Your task to perform on an android device: remove spam from my inbox in the gmail app Image 0: 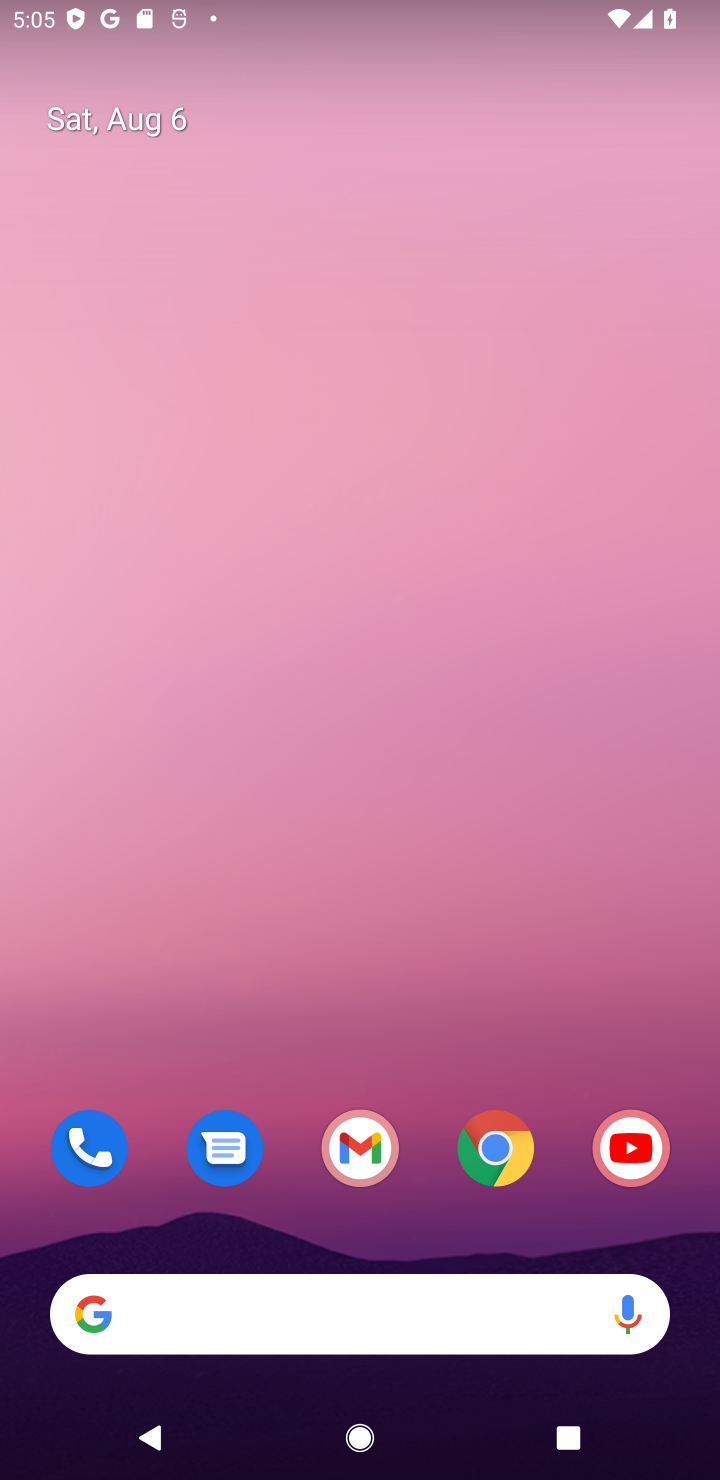
Step 0: drag from (396, 1246) to (215, 238)
Your task to perform on an android device: remove spam from my inbox in the gmail app Image 1: 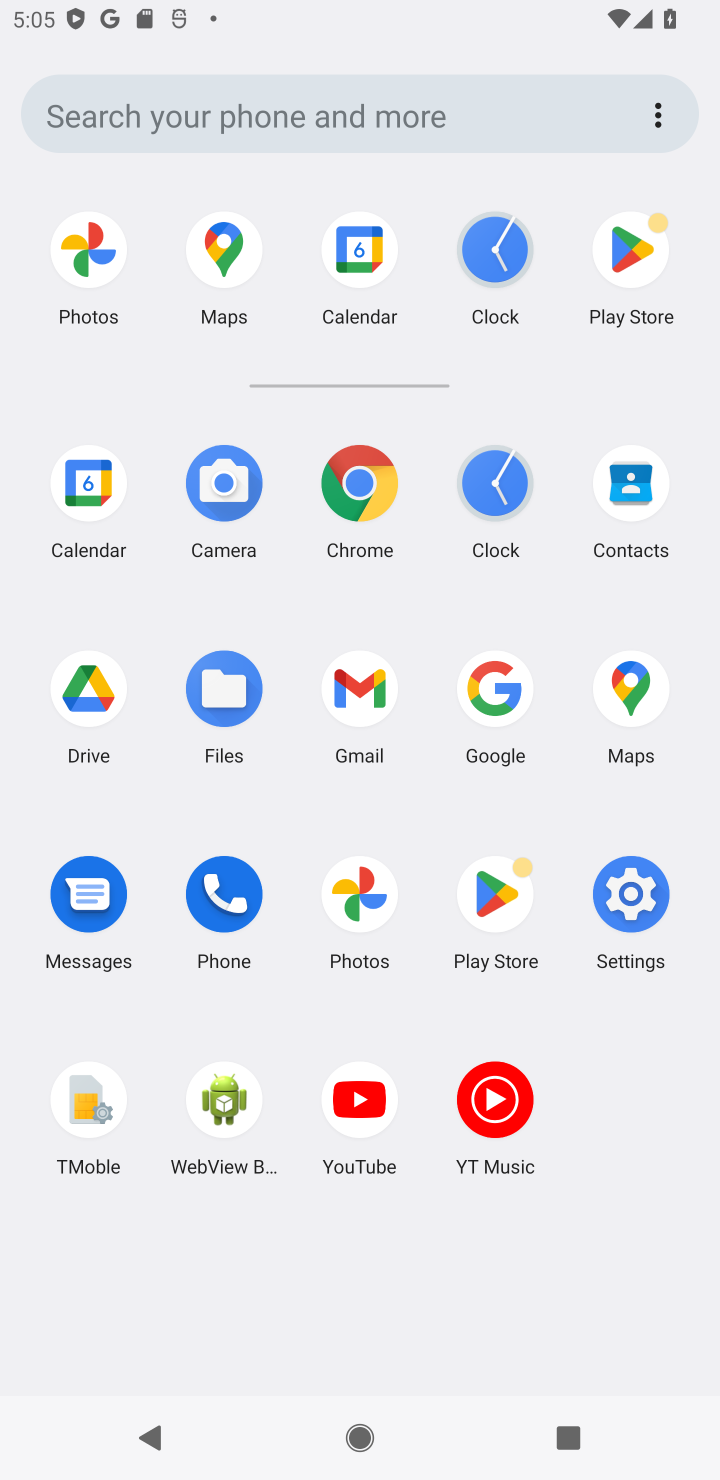
Step 1: click (364, 705)
Your task to perform on an android device: remove spam from my inbox in the gmail app Image 2: 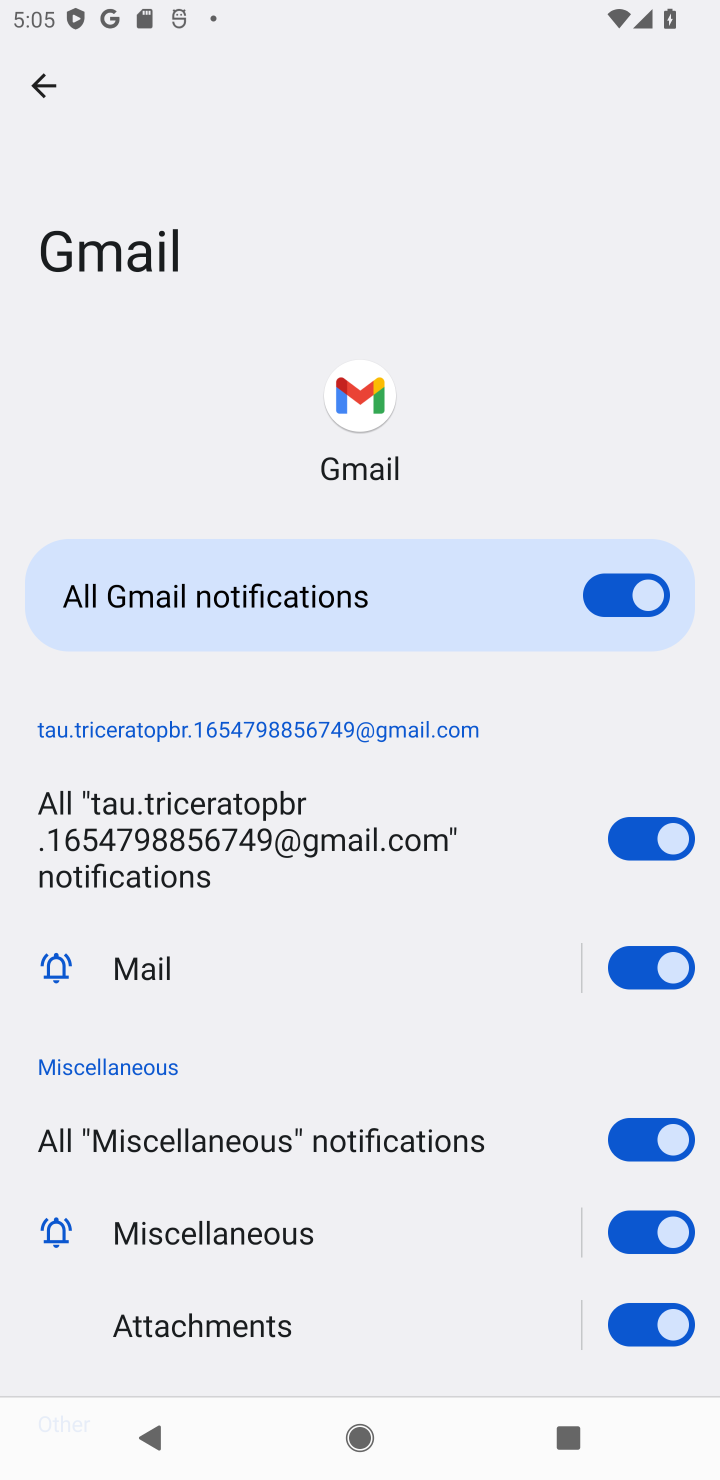
Step 2: click (36, 79)
Your task to perform on an android device: remove spam from my inbox in the gmail app Image 3: 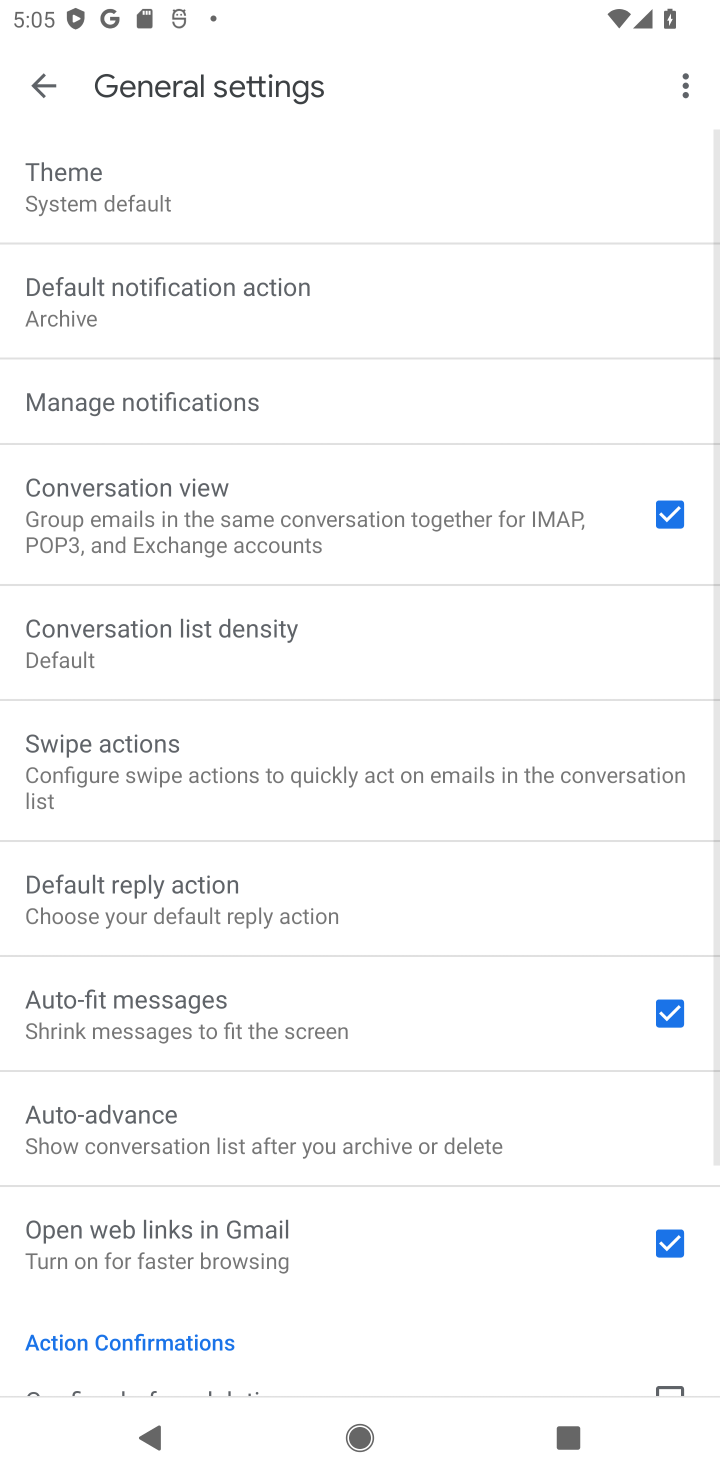
Step 3: click (36, 76)
Your task to perform on an android device: remove spam from my inbox in the gmail app Image 4: 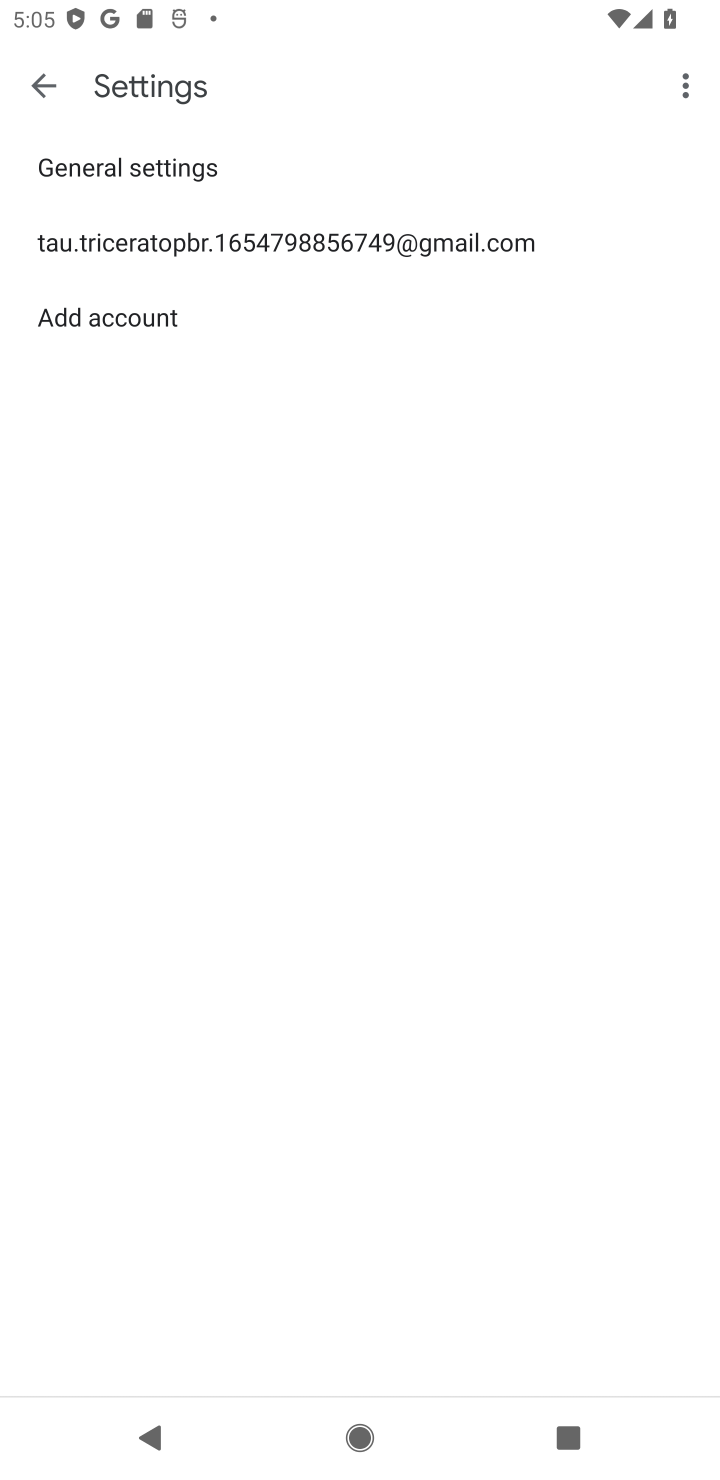
Step 4: click (36, 76)
Your task to perform on an android device: remove spam from my inbox in the gmail app Image 5: 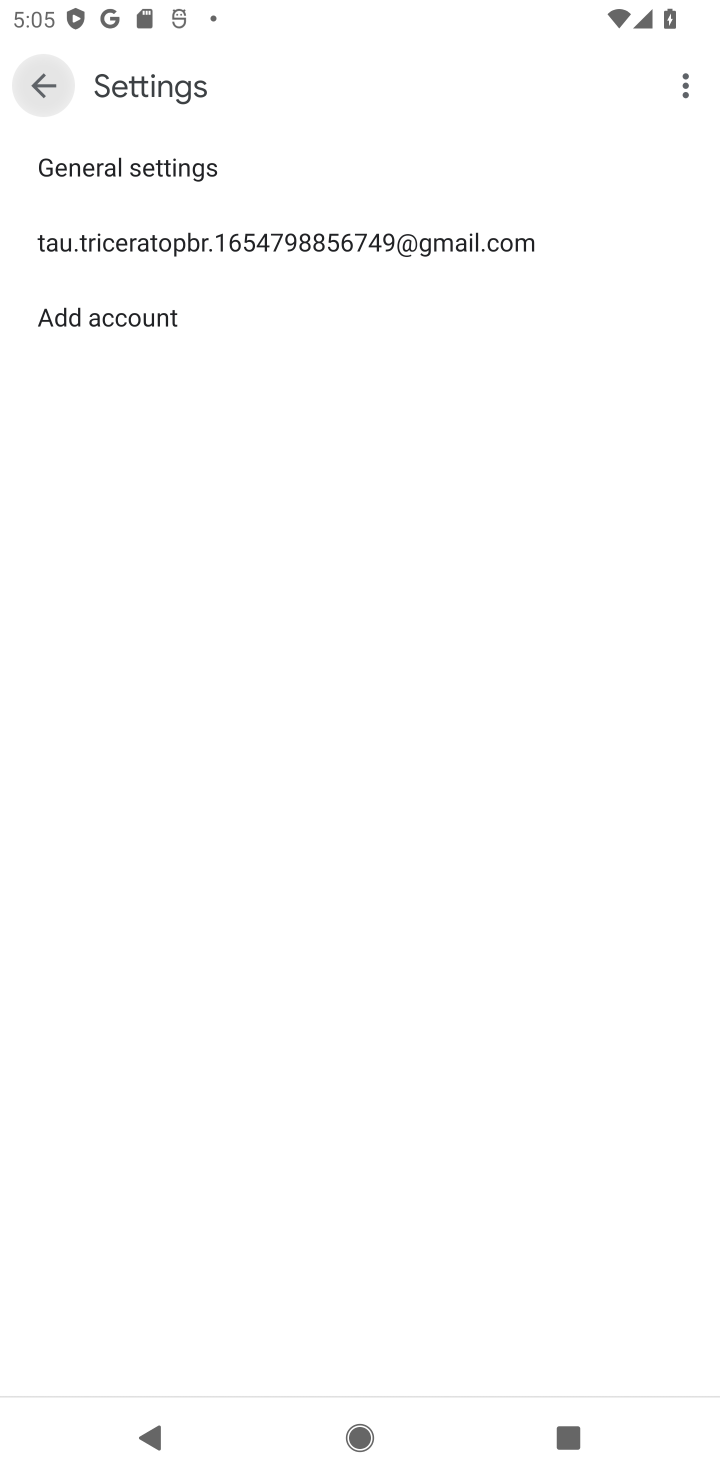
Step 5: click (53, 89)
Your task to perform on an android device: remove spam from my inbox in the gmail app Image 6: 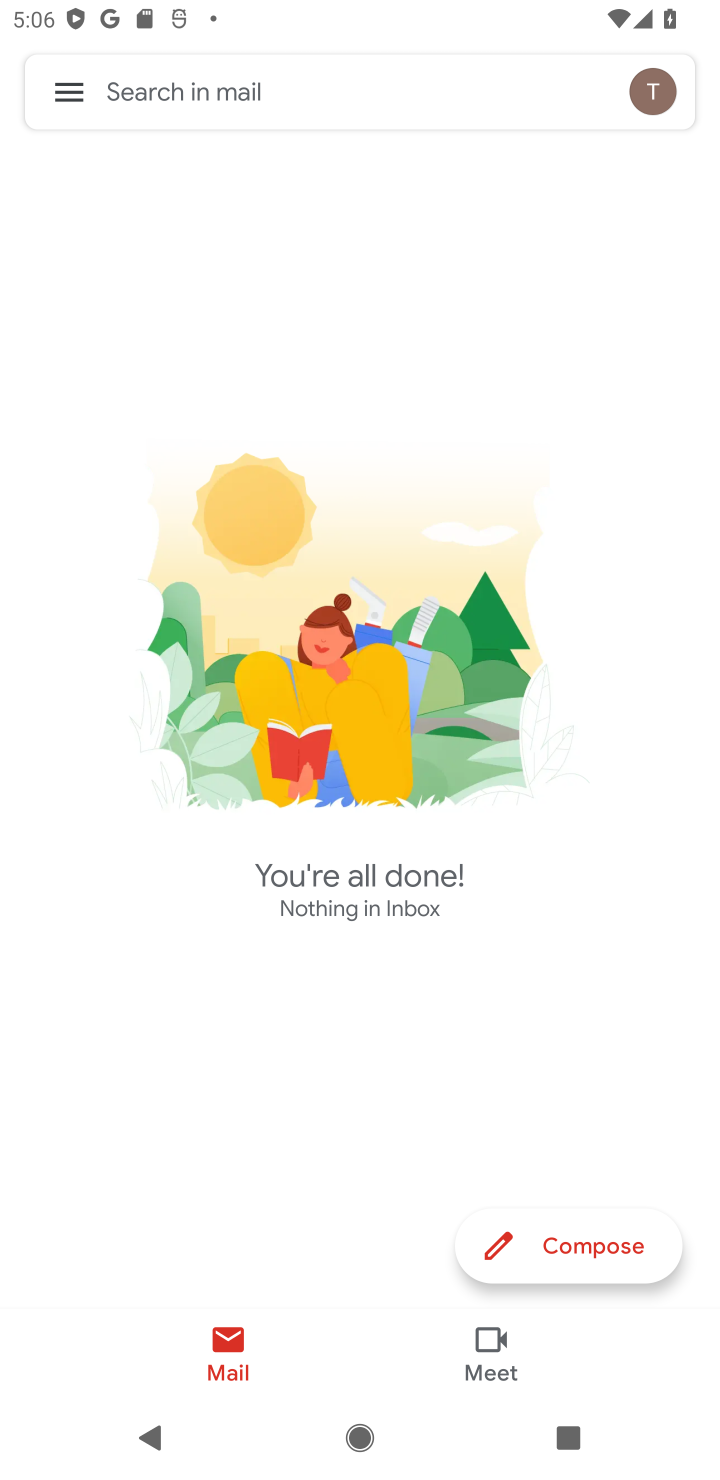
Step 6: click (53, 89)
Your task to perform on an android device: remove spam from my inbox in the gmail app Image 7: 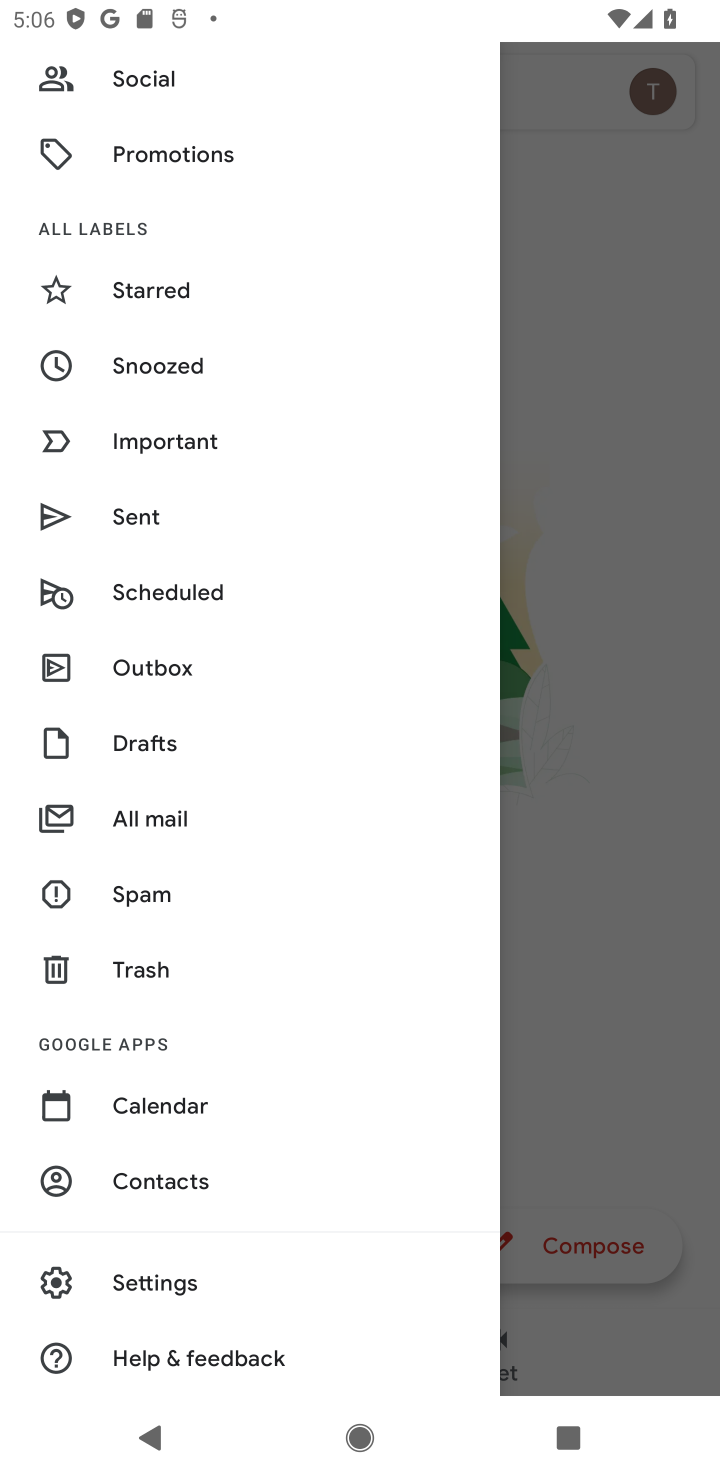
Step 7: click (158, 888)
Your task to perform on an android device: remove spam from my inbox in the gmail app Image 8: 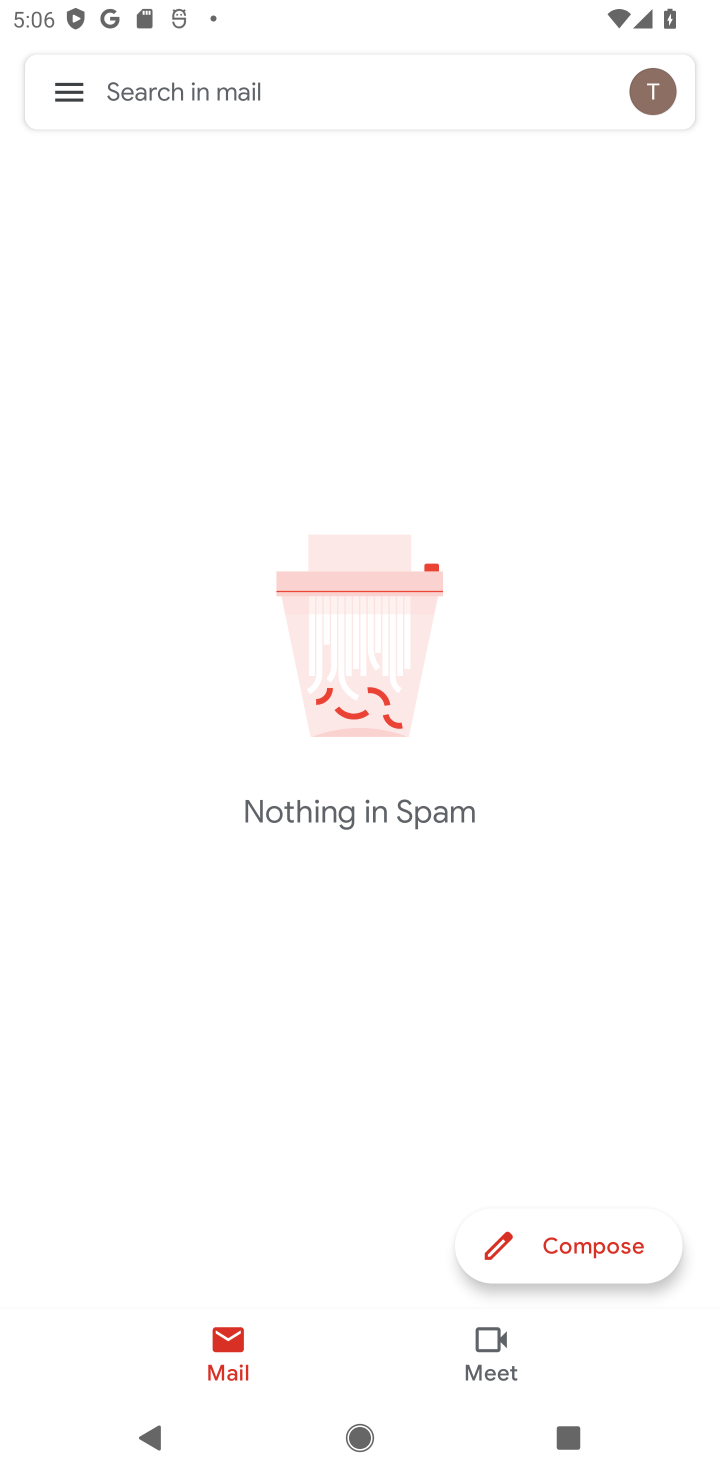
Step 8: task complete